Your task to perform on an android device: turn smart compose on in the gmail app Image 0: 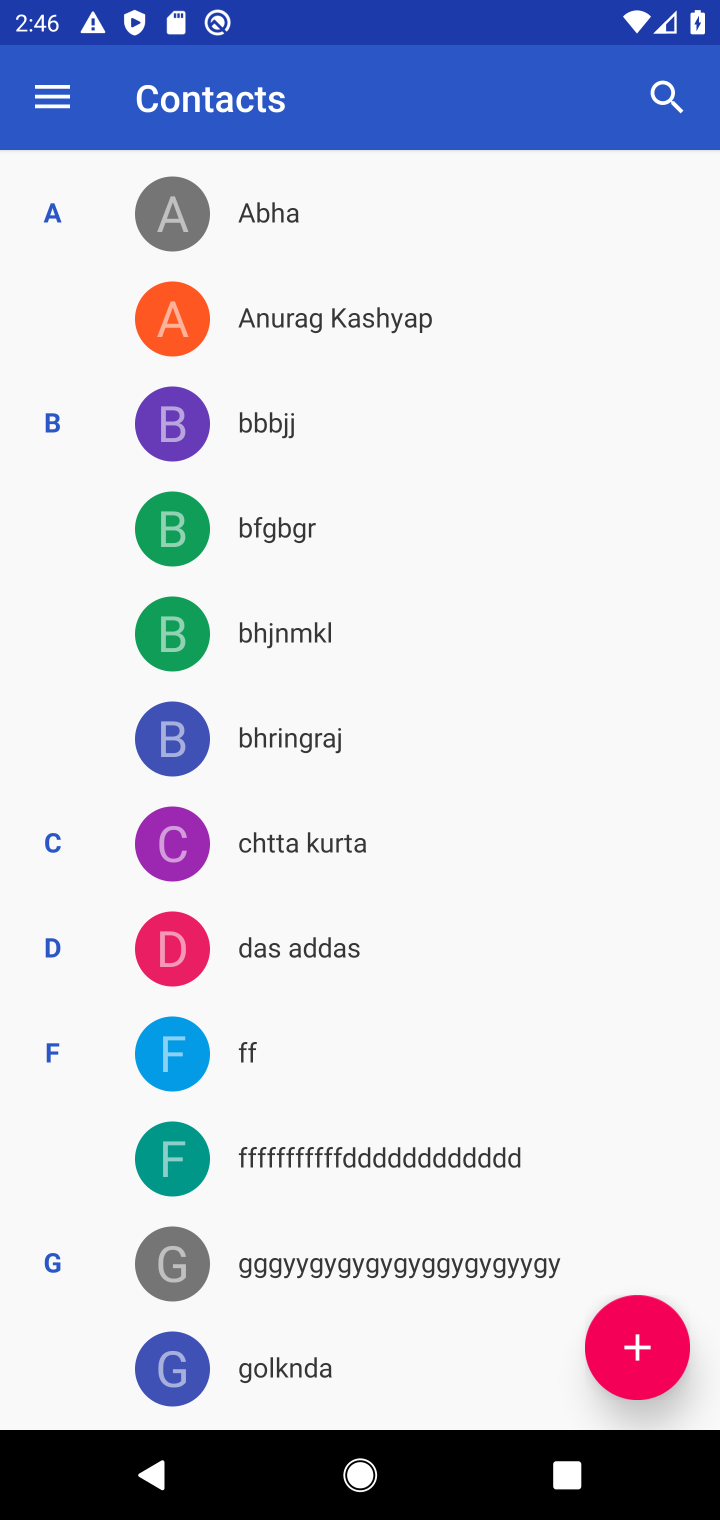
Step 0: press home button
Your task to perform on an android device: turn smart compose on in the gmail app Image 1: 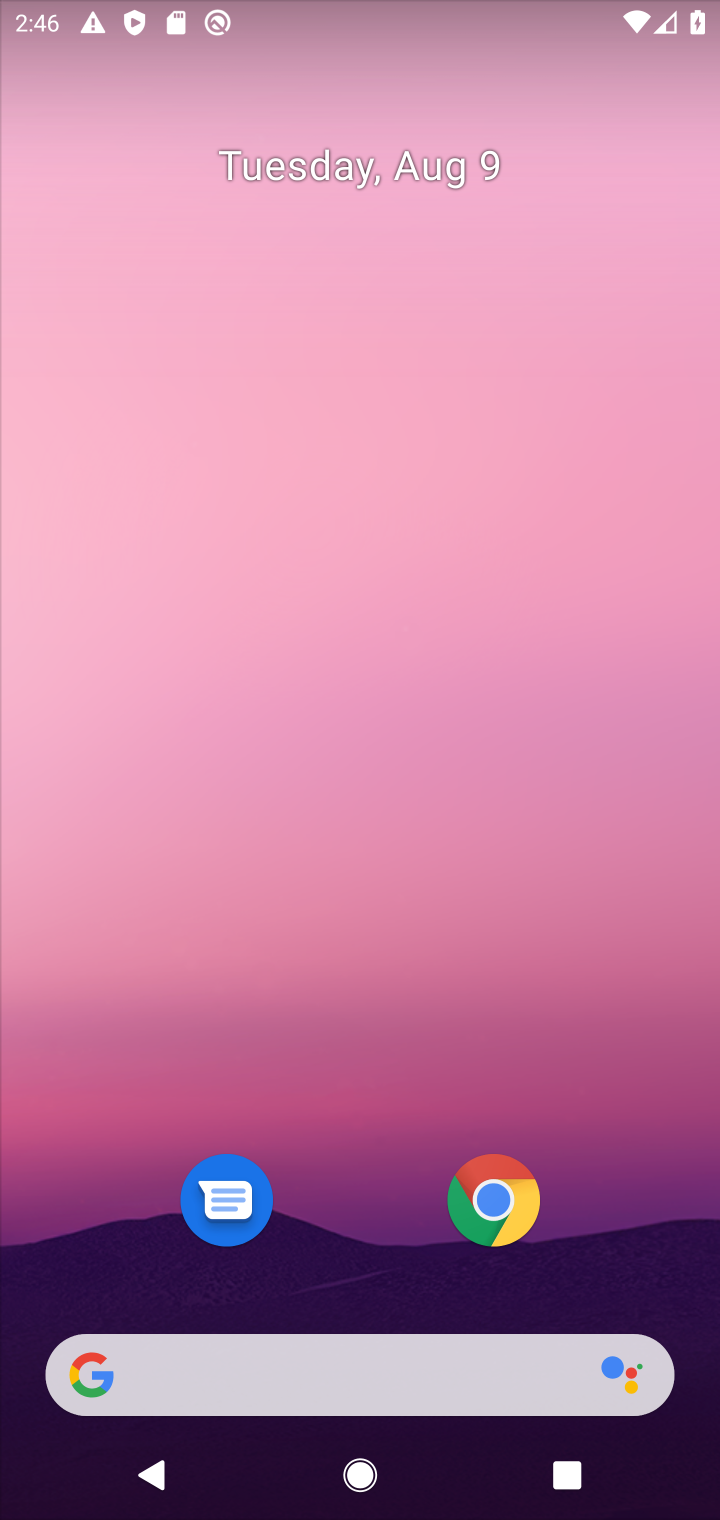
Step 1: drag from (358, 1282) to (531, 0)
Your task to perform on an android device: turn smart compose on in the gmail app Image 2: 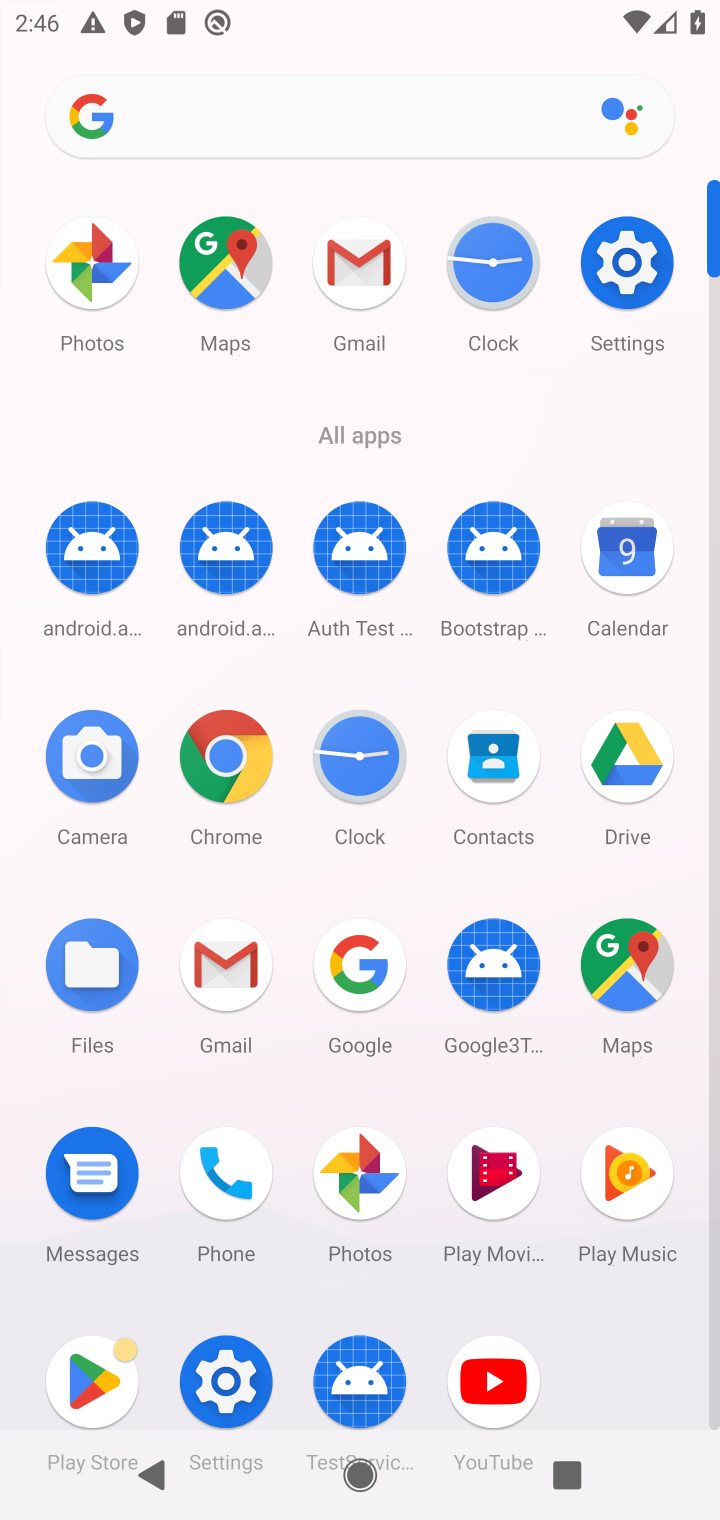
Step 2: click (216, 992)
Your task to perform on an android device: turn smart compose on in the gmail app Image 3: 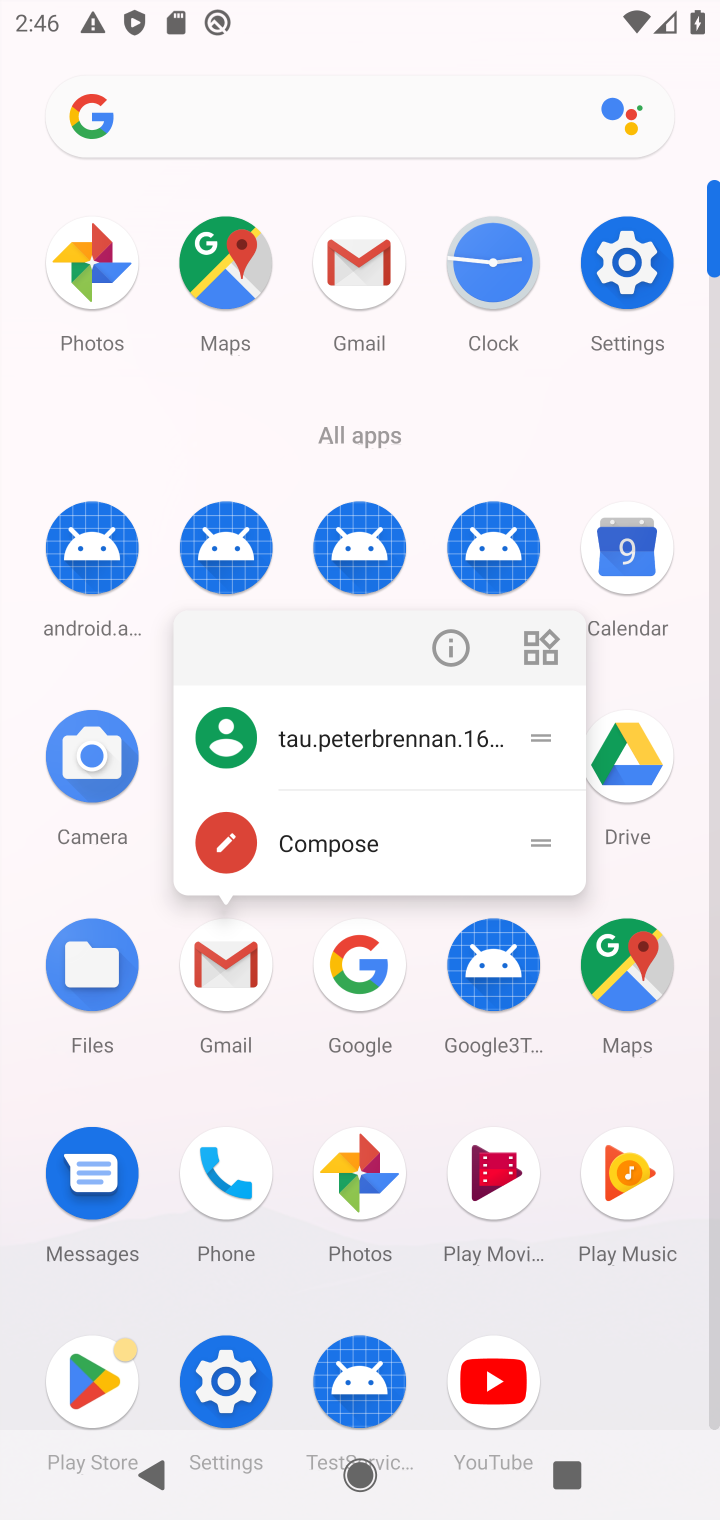
Step 3: click (204, 911)
Your task to perform on an android device: turn smart compose on in the gmail app Image 4: 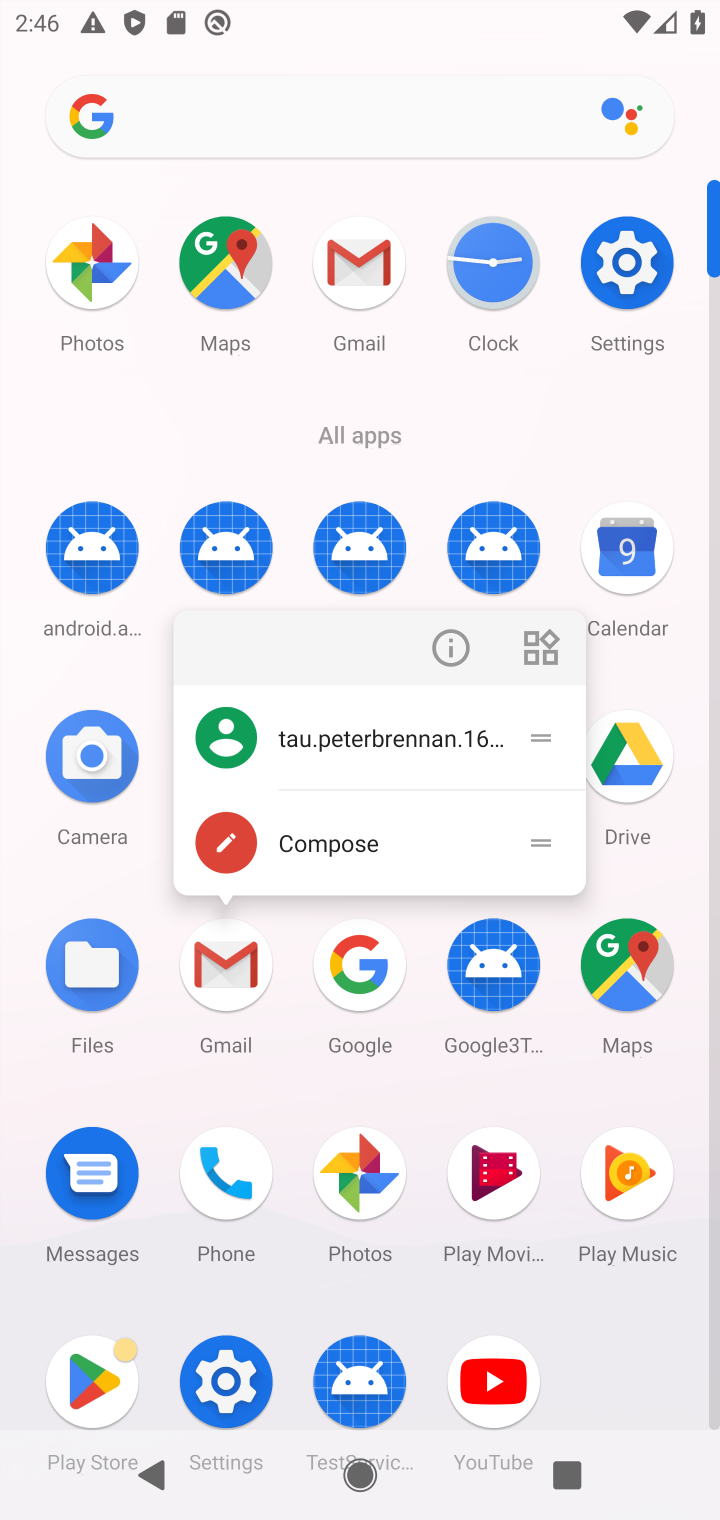
Step 4: click (229, 944)
Your task to perform on an android device: turn smart compose on in the gmail app Image 5: 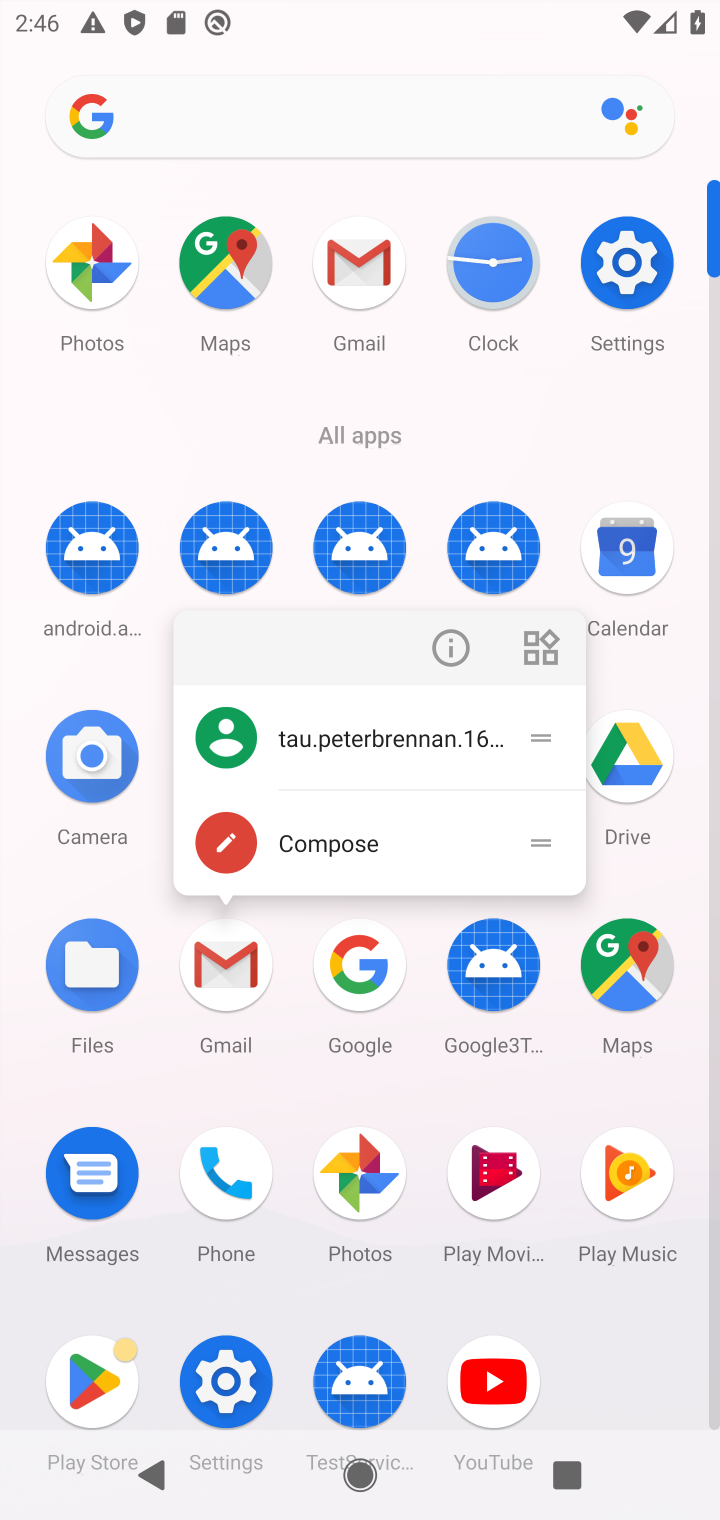
Step 5: click (227, 1011)
Your task to perform on an android device: turn smart compose on in the gmail app Image 6: 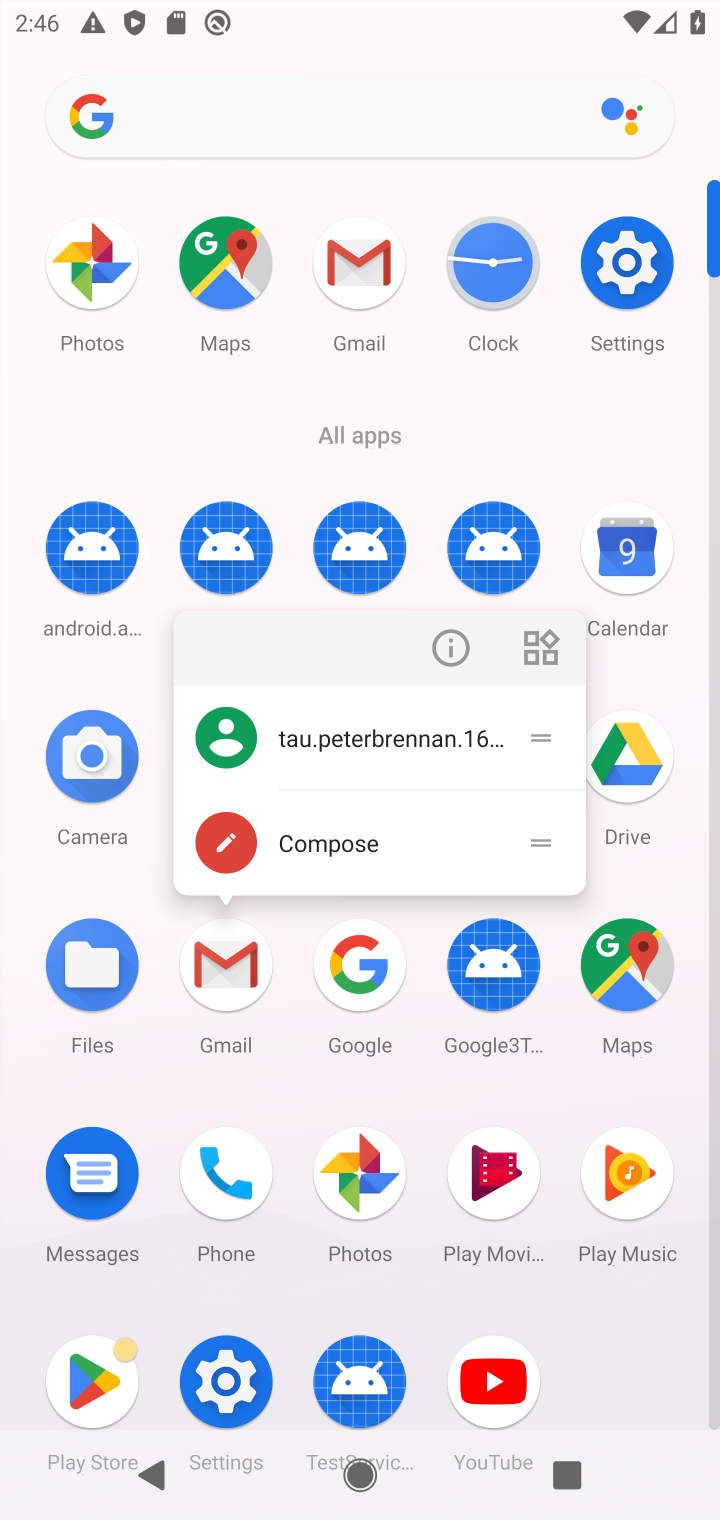
Step 6: click (227, 1006)
Your task to perform on an android device: turn smart compose on in the gmail app Image 7: 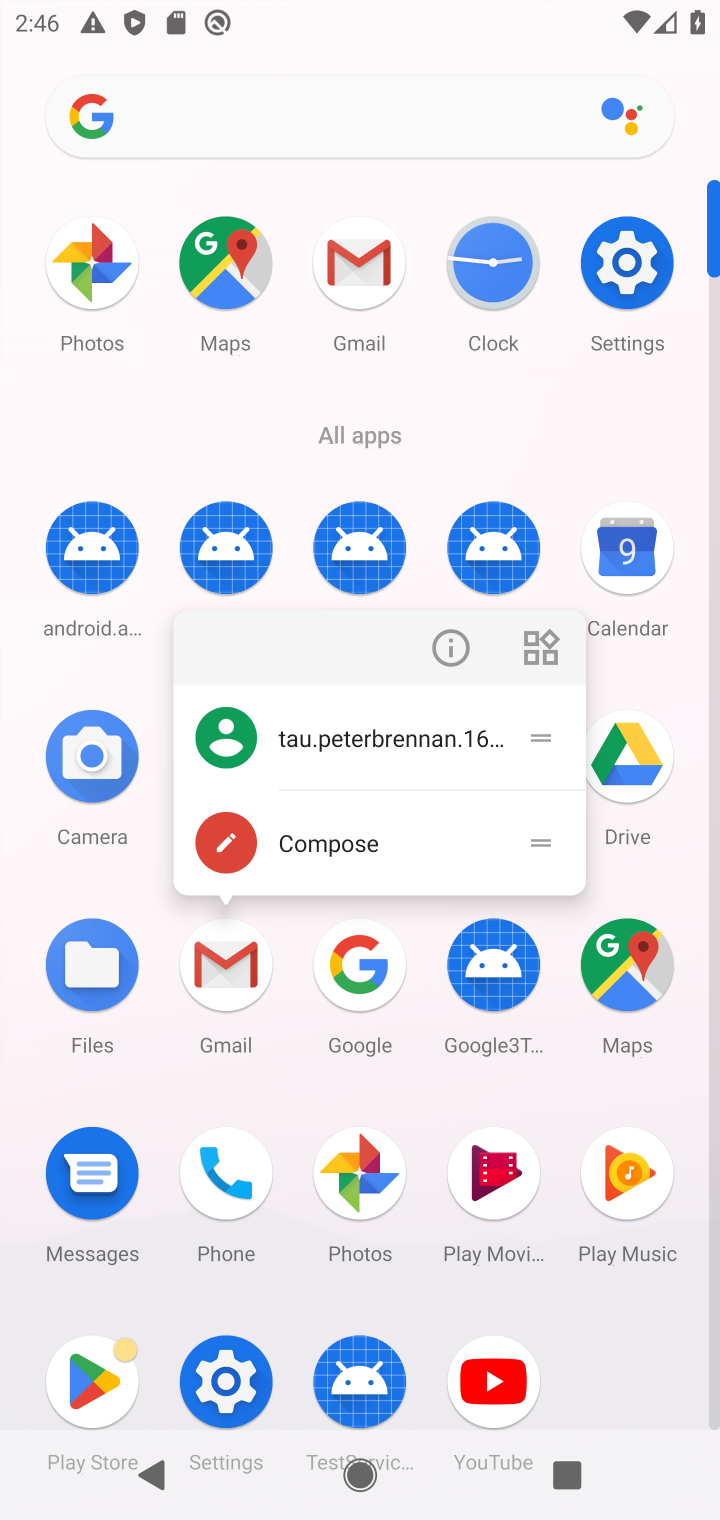
Step 7: click (232, 969)
Your task to perform on an android device: turn smart compose on in the gmail app Image 8: 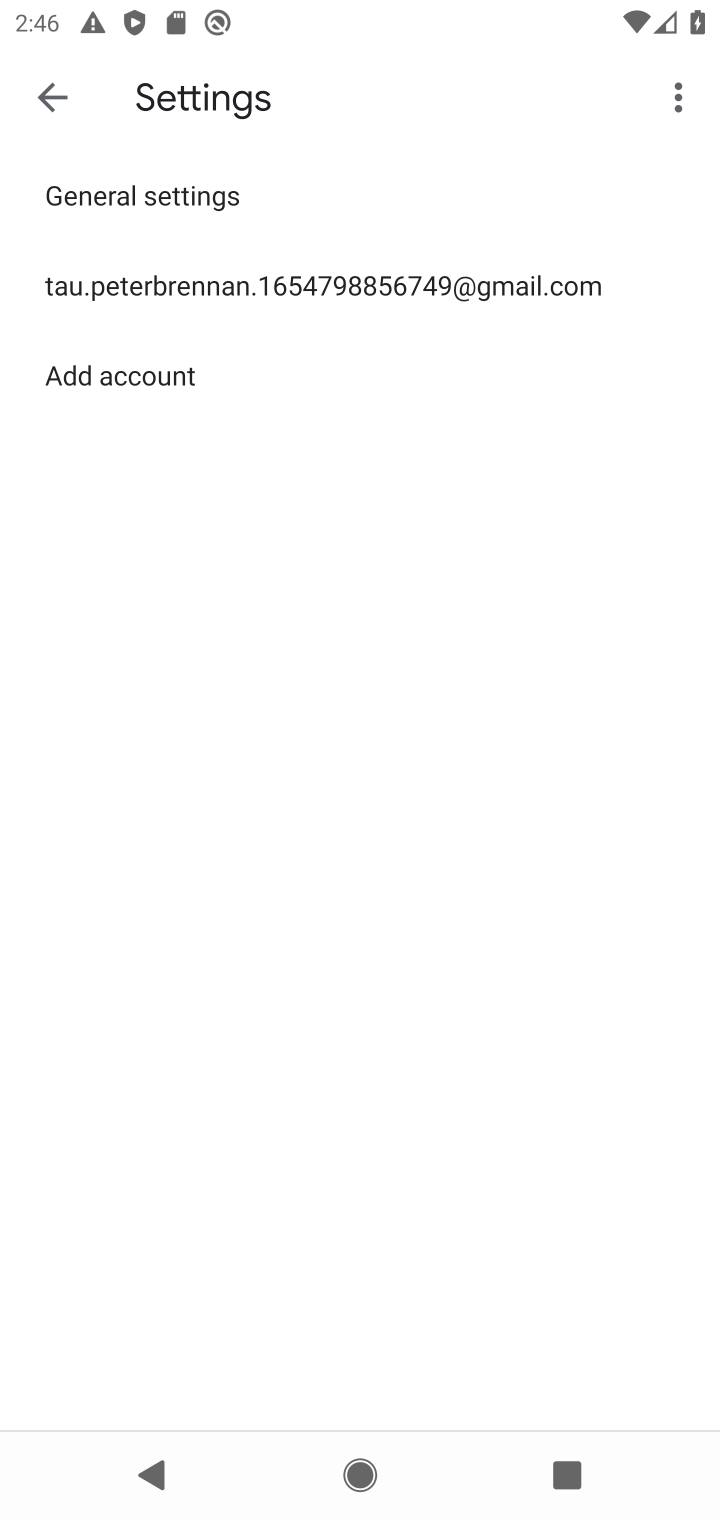
Step 8: click (194, 290)
Your task to perform on an android device: turn smart compose on in the gmail app Image 9: 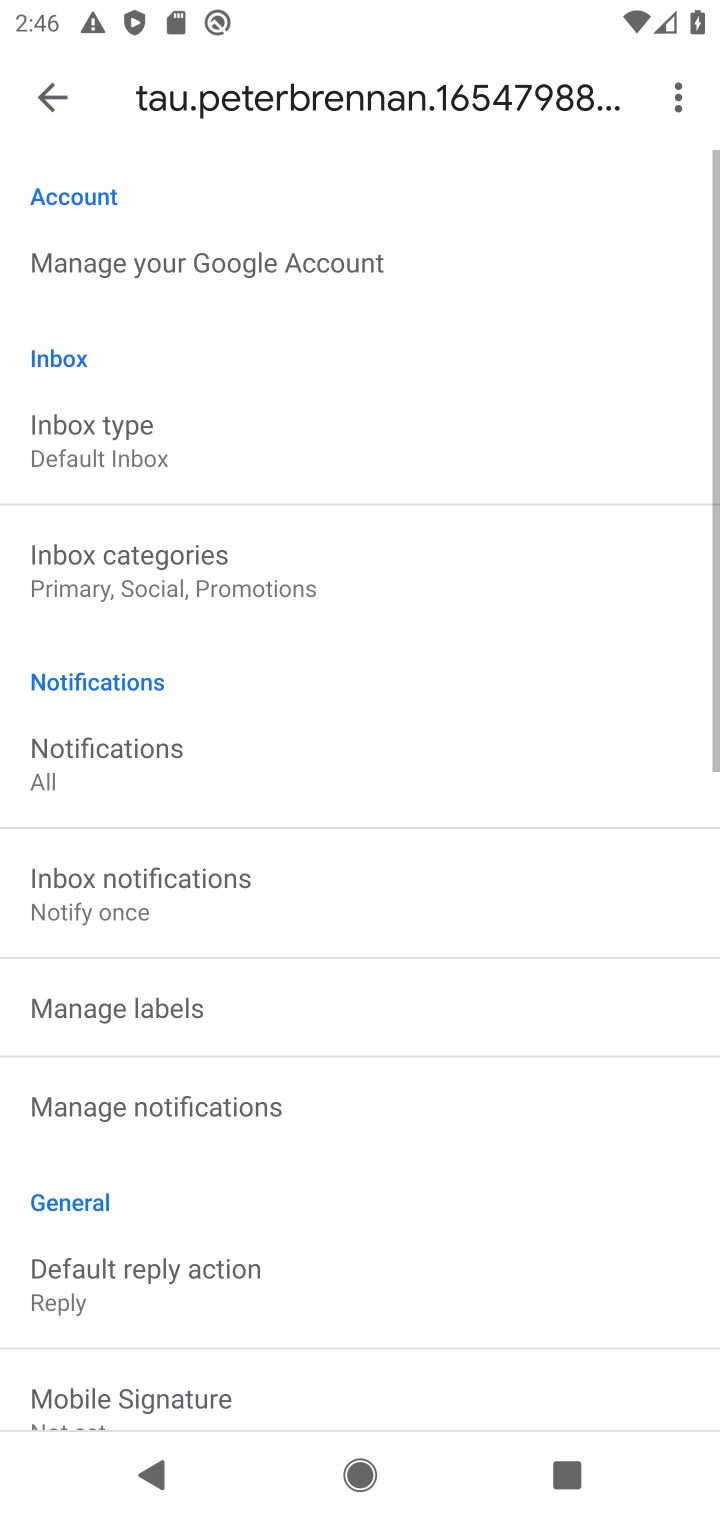
Step 9: task complete